Your task to perform on an android device: Go to settings Image 0: 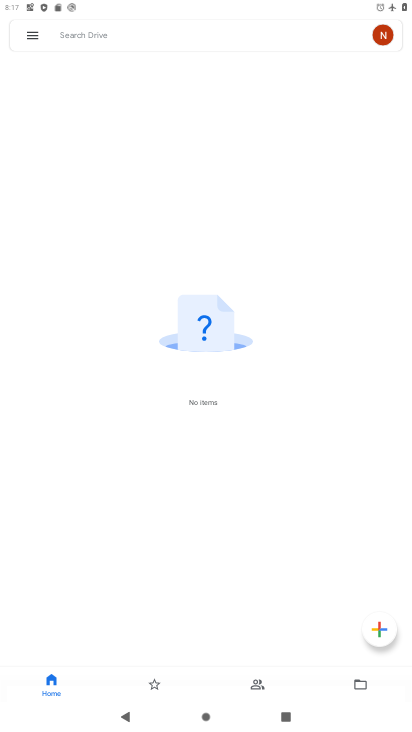
Step 0: press home button
Your task to perform on an android device: Go to settings Image 1: 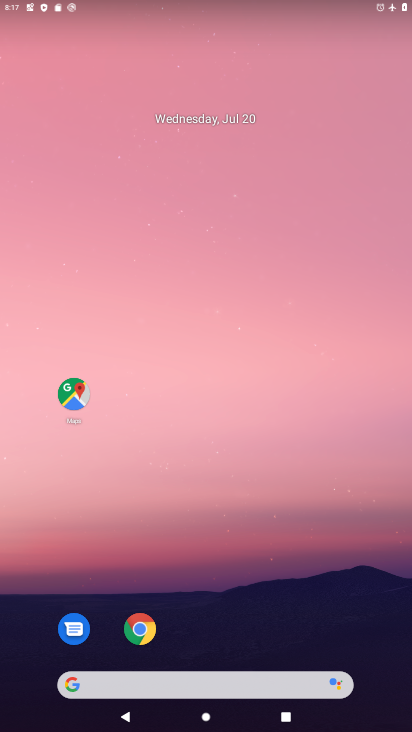
Step 1: drag from (175, 507) to (204, 38)
Your task to perform on an android device: Go to settings Image 2: 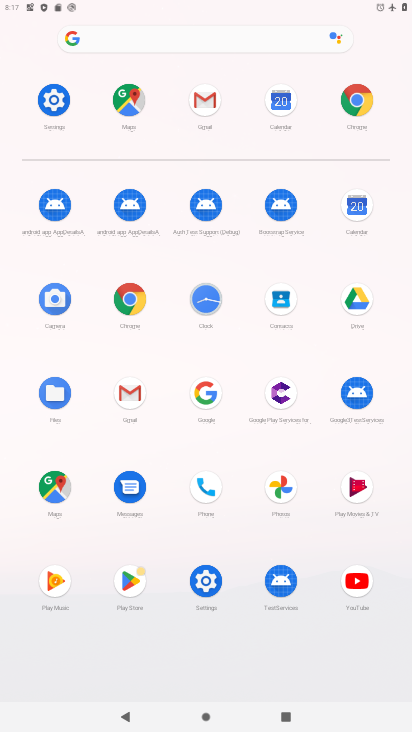
Step 2: click (44, 101)
Your task to perform on an android device: Go to settings Image 3: 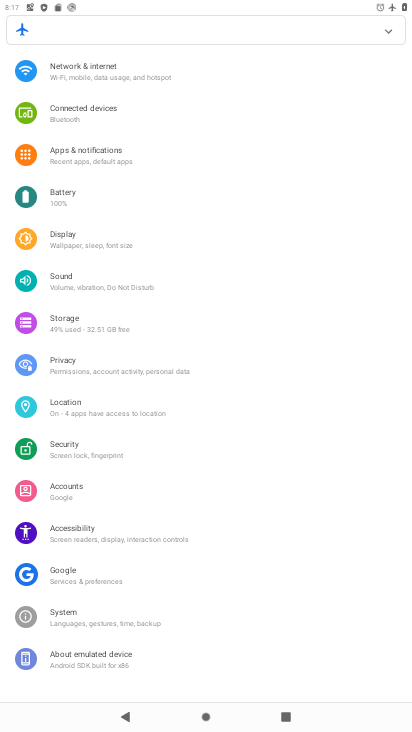
Step 3: task complete